Your task to perform on an android device: manage bookmarks in the chrome app Image 0: 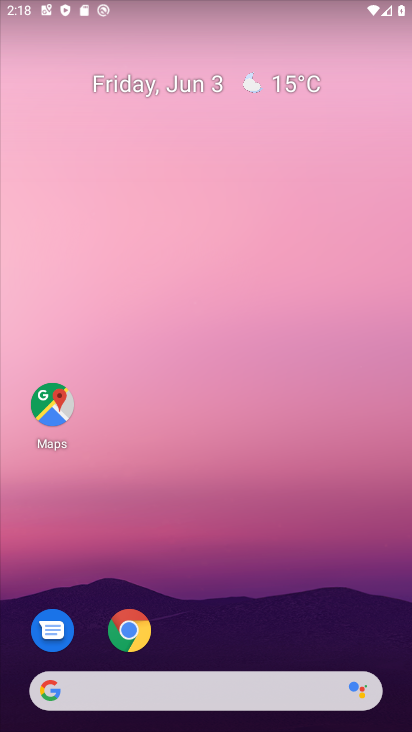
Step 0: drag from (219, 540) to (145, 13)
Your task to perform on an android device: manage bookmarks in the chrome app Image 1: 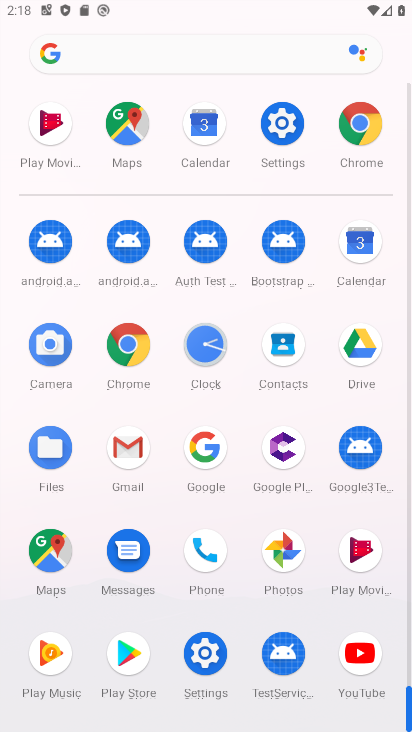
Step 1: click (127, 342)
Your task to perform on an android device: manage bookmarks in the chrome app Image 2: 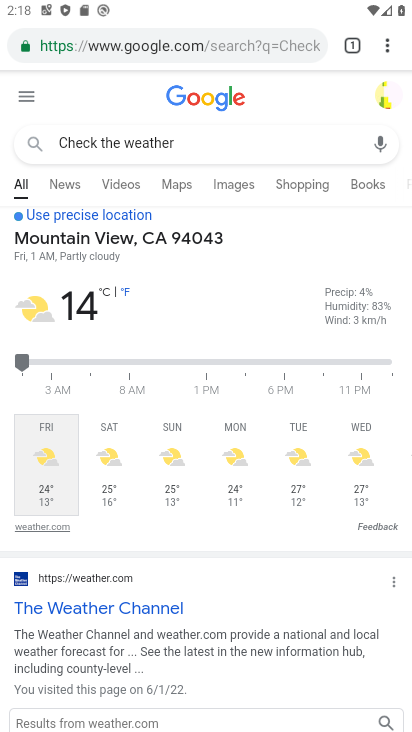
Step 2: task complete